Your task to perform on an android device: turn off translation in the chrome app Image 0: 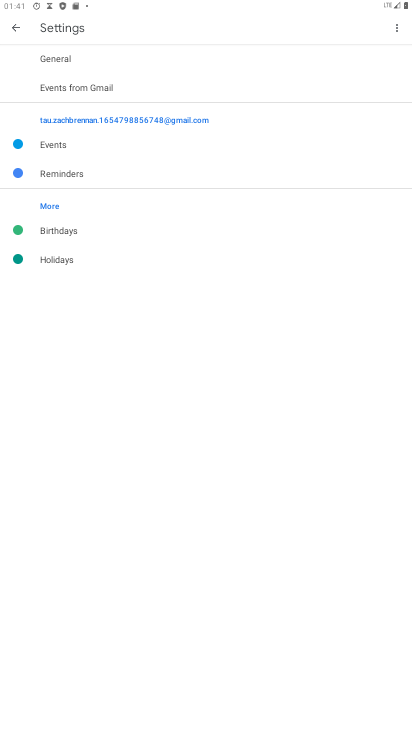
Step 0: press home button
Your task to perform on an android device: turn off translation in the chrome app Image 1: 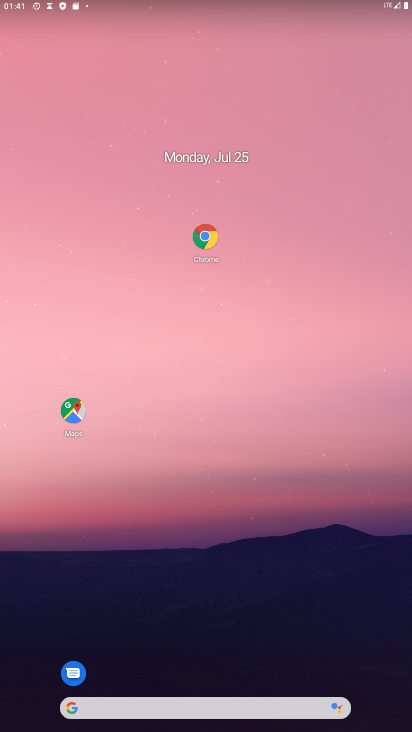
Step 1: drag from (276, 665) to (239, 16)
Your task to perform on an android device: turn off translation in the chrome app Image 2: 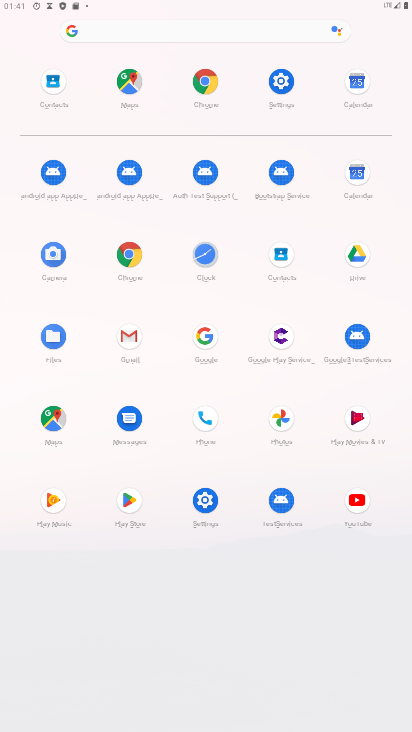
Step 2: click (141, 246)
Your task to perform on an android device: turn off translation in the chrome app Image 3: 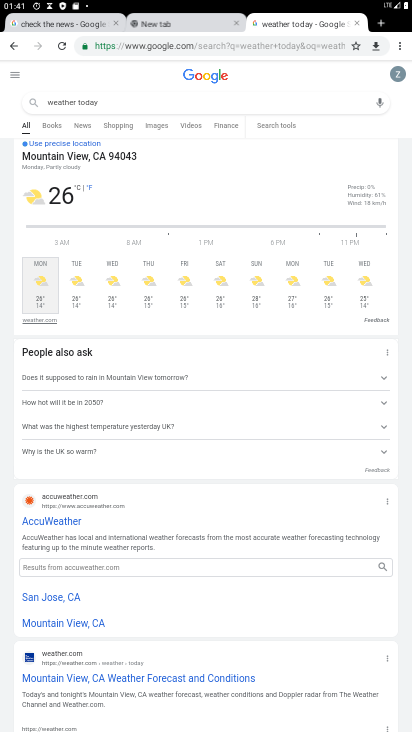
Step 3: click (196, 38)
Your task to perform on an android device: turn off translation in the chrome app Image 4: 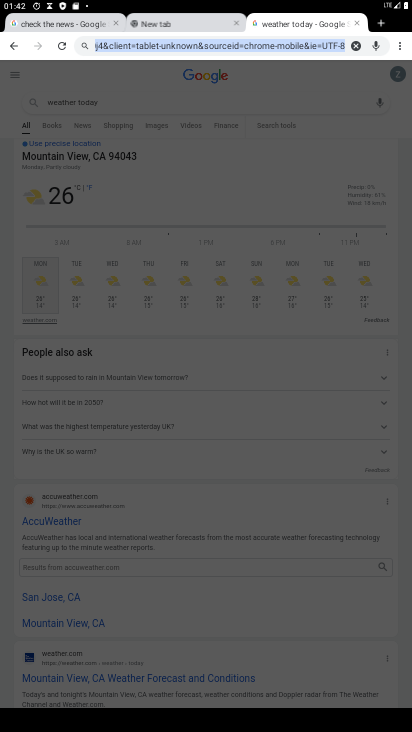
Step 4: click (399, 45)
Your task to perform on an android device: turn off translation in the chrome app Image 5: 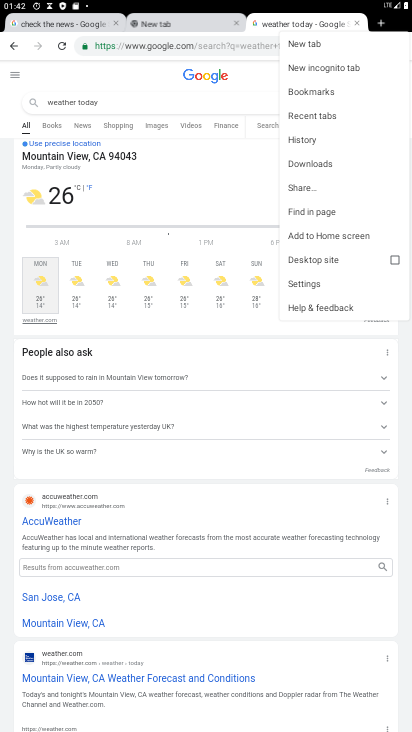
Step 5: click (319, 278)
Your task to perform on an android device: turn off translation in the chrome app Image 6: 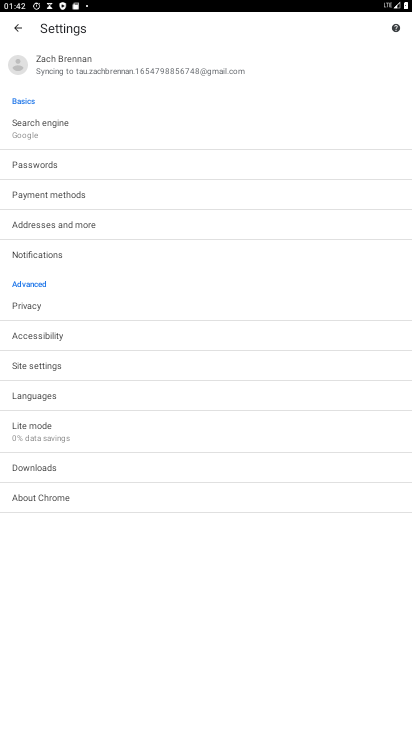
Step 6: click (150, 365)
Your task to perform on an android device: turn off translation in the chrome app Image 7: 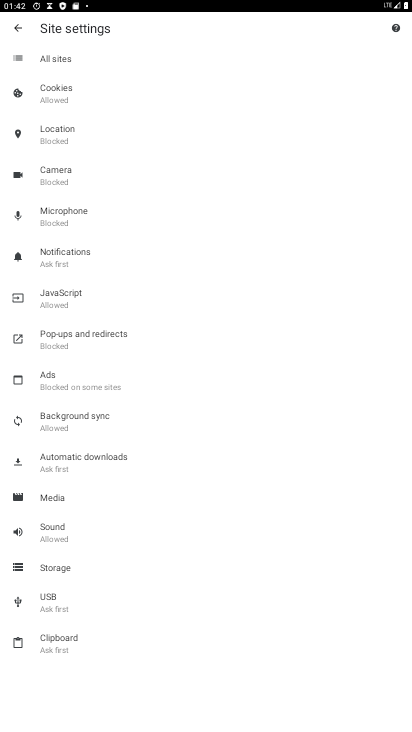
Step 7: press back button
Your task to perform on an android device: turn off translation in the chrome app Image 8: 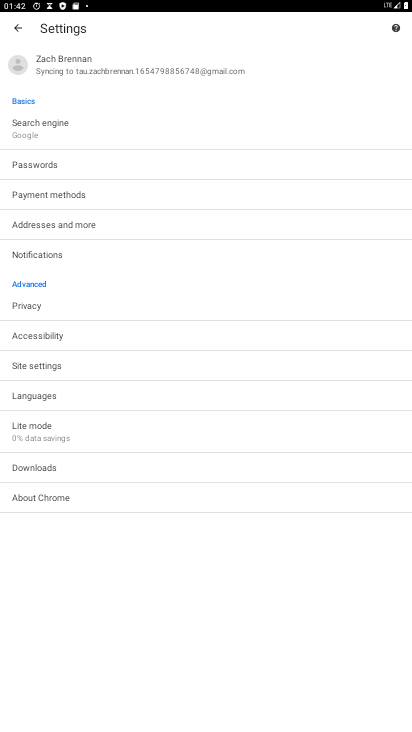
Step 8: click (69, 392)
Your task to perform on an android device: turn off translation in the chrome app Image 9: 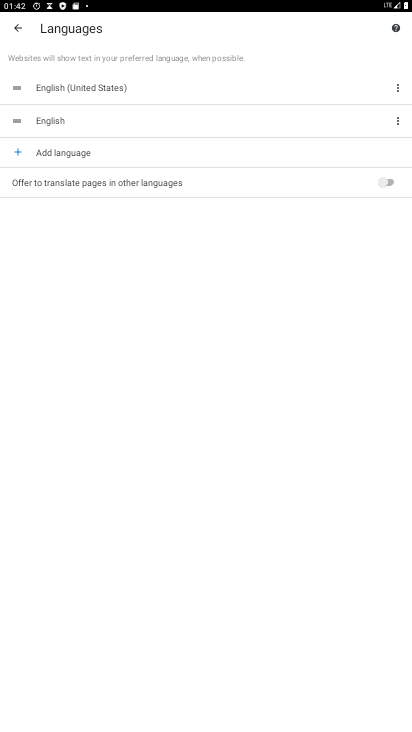
Step 9: task complete